Your task to perform on an android device: open device folders in google photos Image 0: 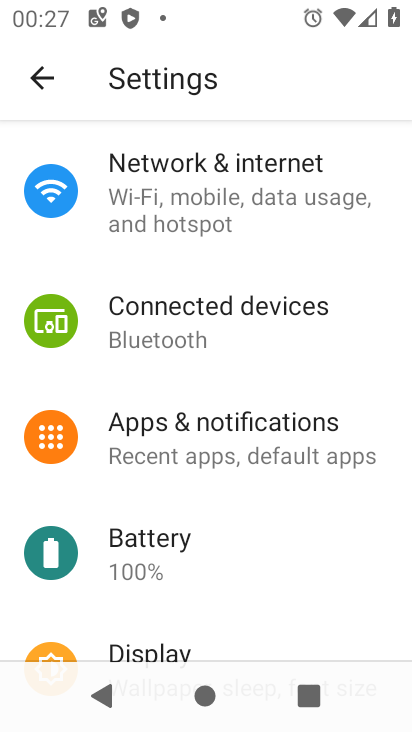
Step 0: press home button
Your task to perform on an android device: open device folders in google photos Image 1: 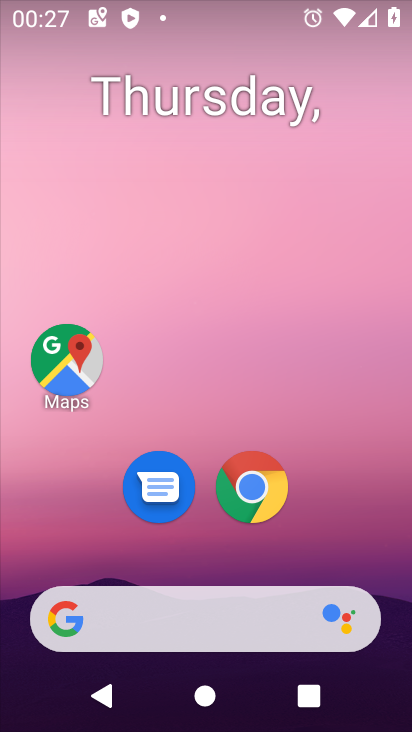
Step 1: drag from (351, 564) to (352, 2)
Your task to perform on an android device: open device folders in google photos Image 2: 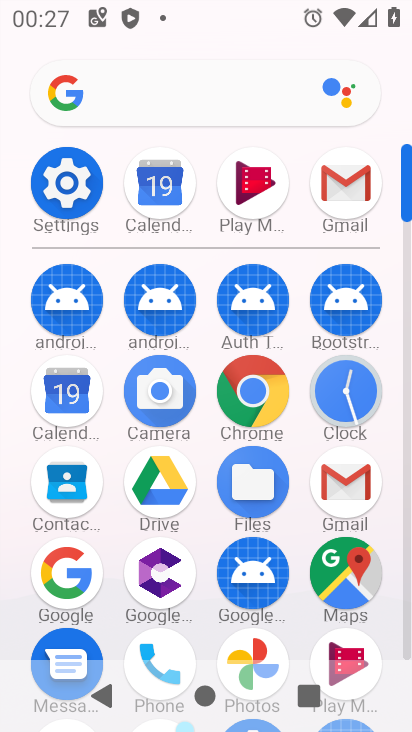
Step 2: click (407, 548)
Your task to perform on an android device: open device folders in google photos Image 3: 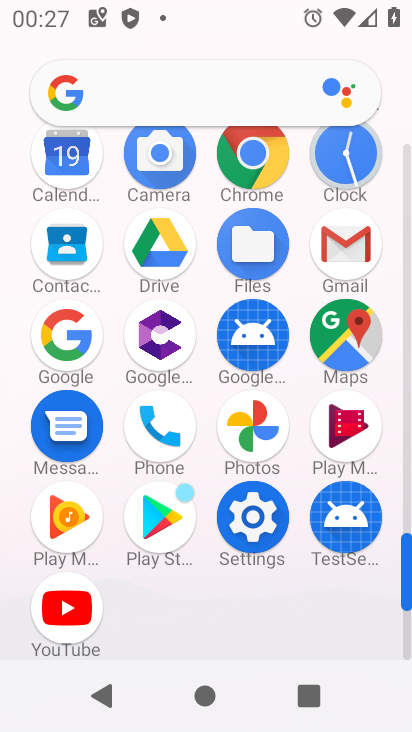
Step 3: click (249, 433)
Your task to perform on an android device: open device folders in google photos Image 4: 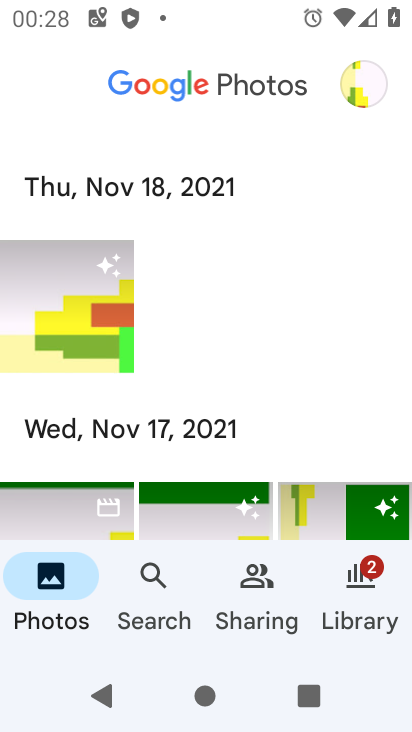
Step 4: task complete